Your task to perform on an android device: Open accessibility settings Image 0: 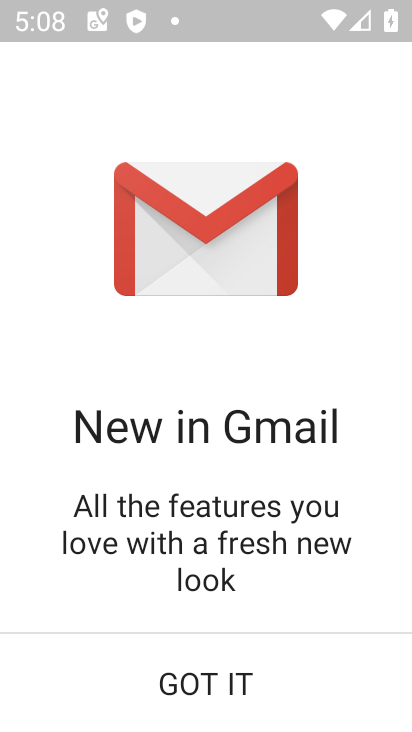
Step 0: press home button
Your task to perform on an android device: Open accessibility settings Image 1: 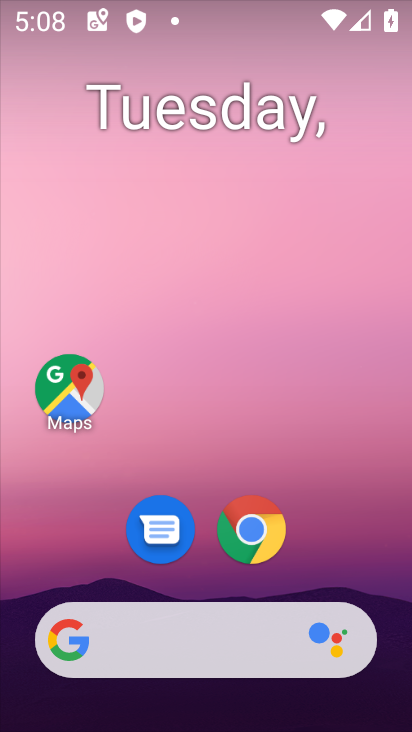
Step 1: drag from (341, 550) to (324, 59)
Your task to perform on an android device: Open accessibility settings Image 2: 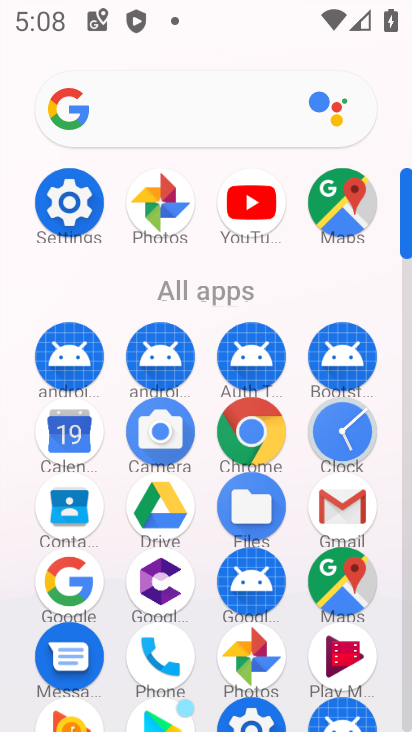
Step 2: click (79, 192)
Your task to perform on an android device: Open accessibility settings Image 3: 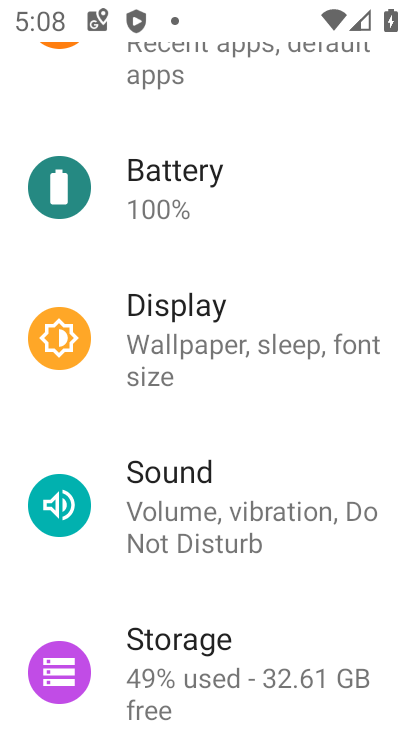
Step 3: drag from (315, 356) to (318, 307)
Your task to perform on an android device: Open accessibility settings Image 4: 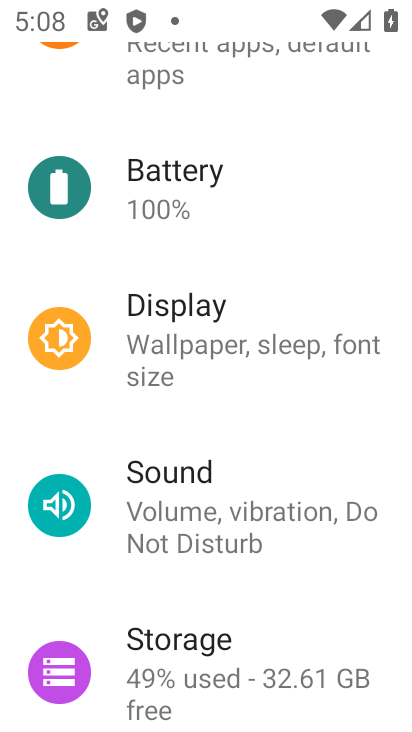
Step 4: drag from (395, 573) to (392, 92)
Your task to perform on an android device: Open accessibility settings Image 5: 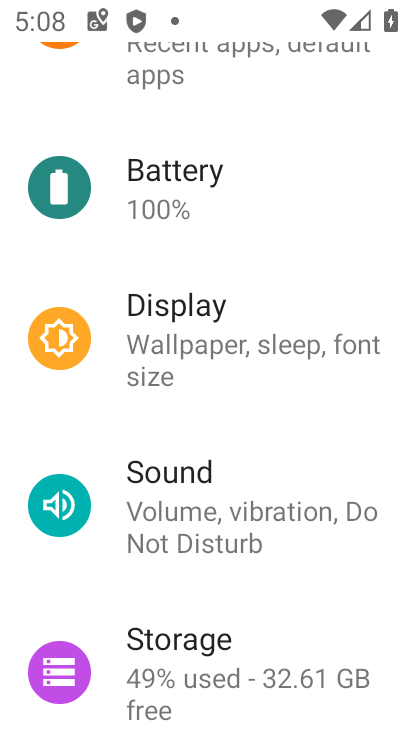
Step 5: drag from (404, 134) to (386, 298)
Your task to perform on an android device: Open accessibility settings Image 6: 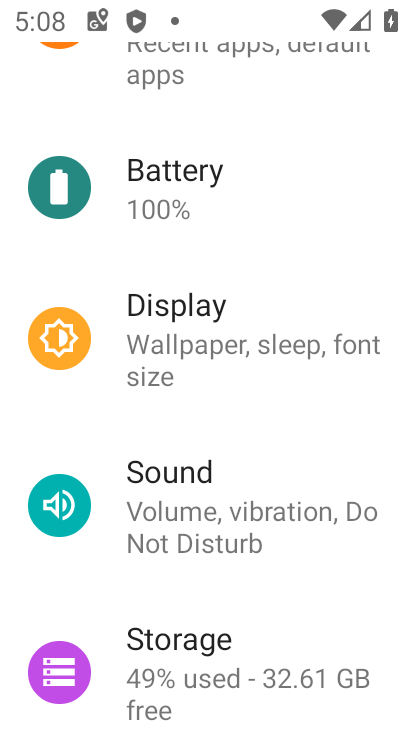
Step 6: drag from (399, 132) to (385, 456)
Your task to perform on an android device: Open accessibility settings Image 7: 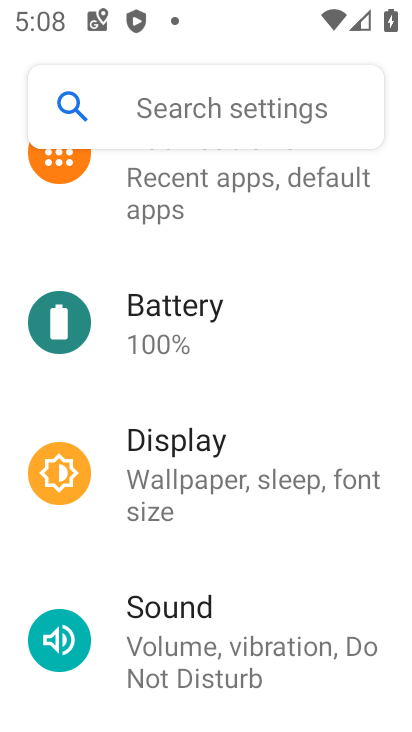
Step 7: drag from (409, 182) to (407, 500)
Your task to perform on an android device: Open accessibility settings Image 8: 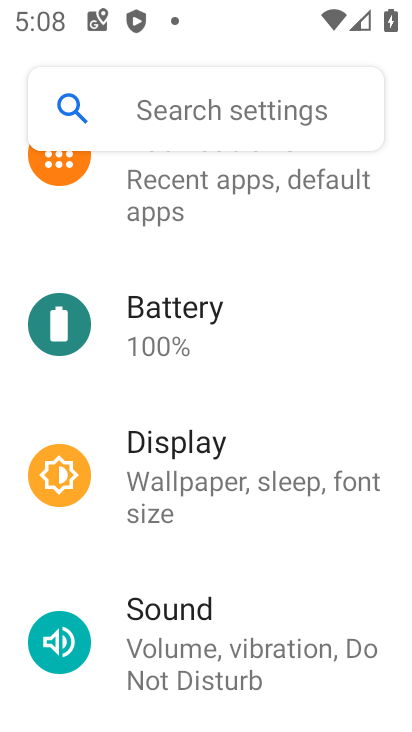
Step 8: drag from (401, 184) to (365, 541)
Your task to perform on an android device: Open accessibility settings Image 9: 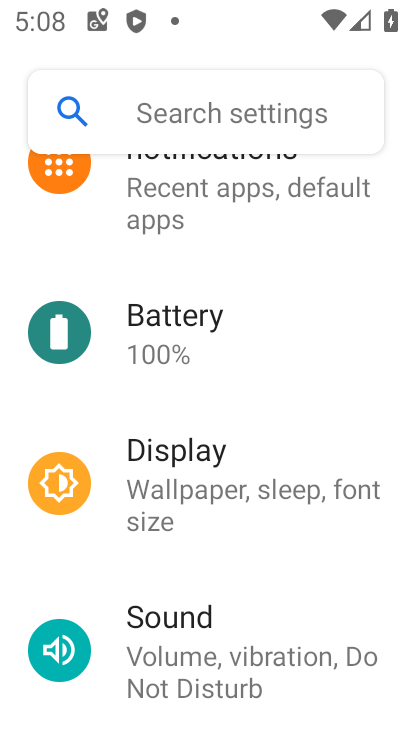
Step 9: drag from (402, 145) to (370, 539)
Your task to perform on an android device: Open accessibility settings Image 10: 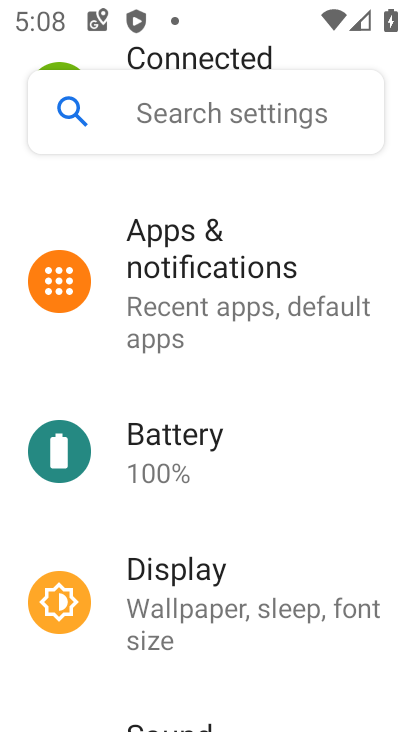
Step 10: click (407, 543)
Your task to perform on an android device: Open accessibility settings Image 11: 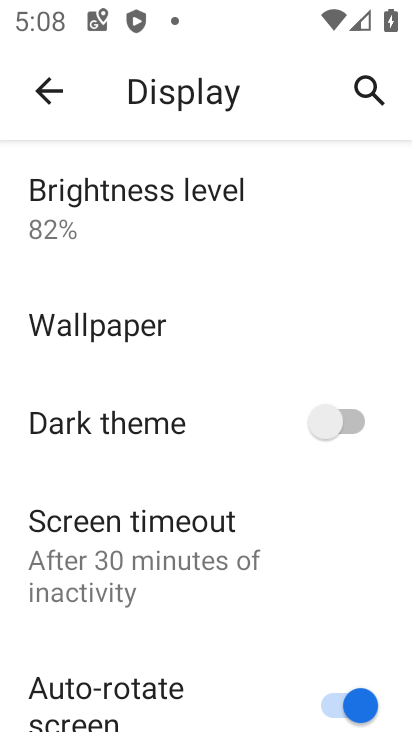
Step 11: press back button
Your task to perform on an android device: Open accessibility settings Image 12: 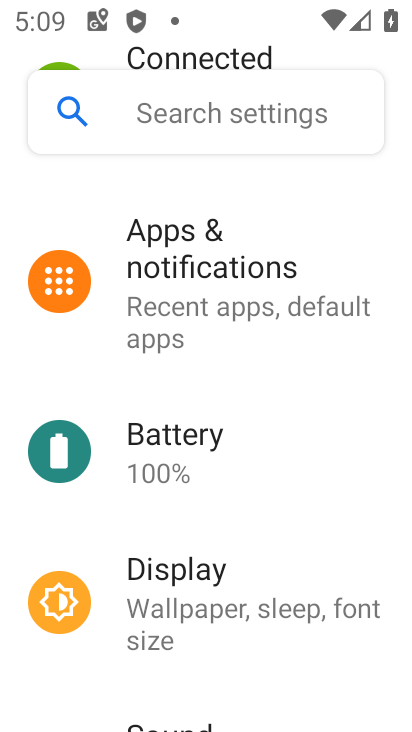
Step 12: drag from (391, 315) to (365, 598)
Your task to perform on an android device: Open accessibility settings Image 13: 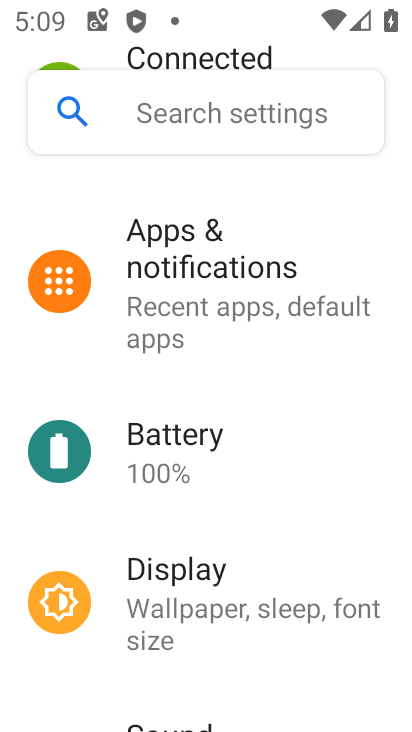
Step 13: drag from (398, 269) to (388, 704)
Your task to perform on an android device: Open accessibility settings Image 14: 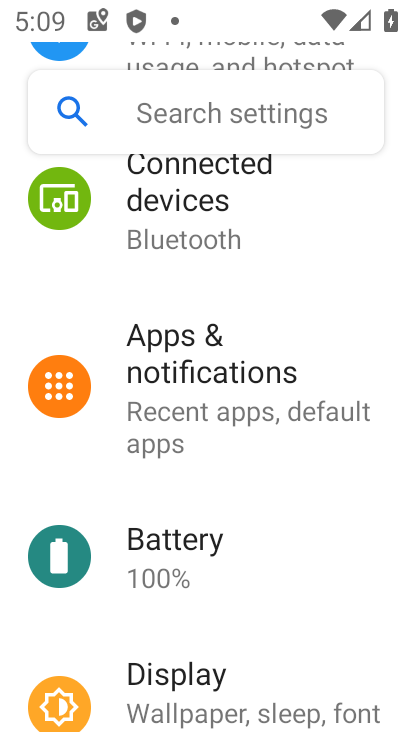
Step 14: drag from (398, 229) to (389, 556)
Your task to perform on an android device: Open accessibility settings Image 15: 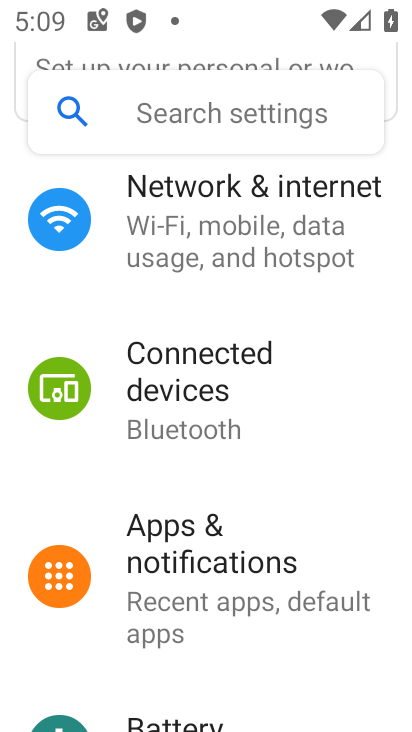
Step 15: drag from (397, 615) to (396, 286)
Your task to perform on an android device: Open accessibility settings Image 16: 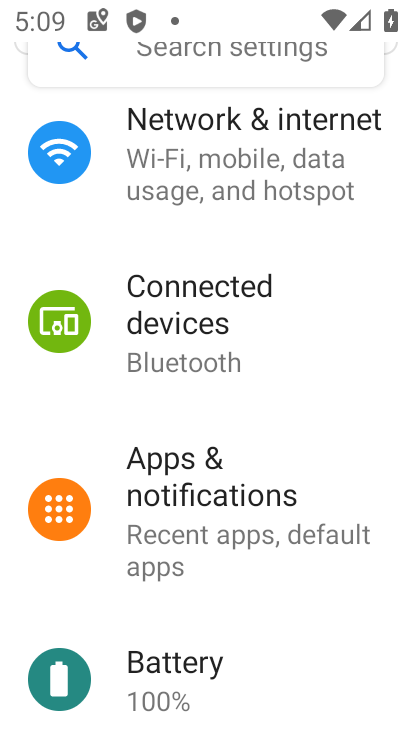
Step 16: drag from (397, 613) to (380, 197)
Your task to perform on an android device: Open accessibility settings Image 17: 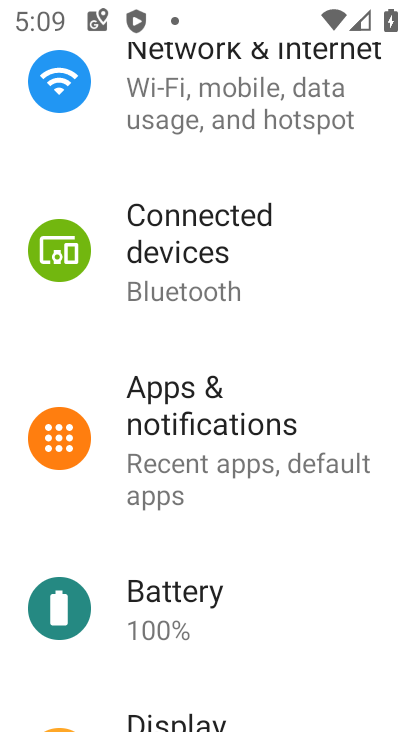
Step 17: drag from (395, 532) to (403, 134)
Your task to perform on an android device: Open accessibility settings Image 18: 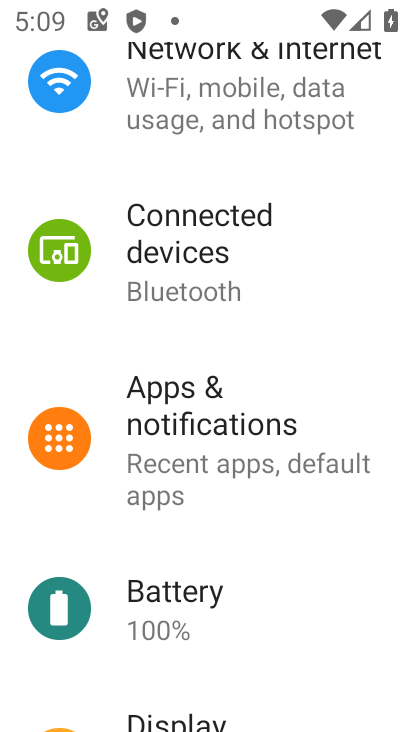
Step 18: drag from (401, 577) to (411, 139)
Your task to perform on an android device: Open accessibility settings Image 19: 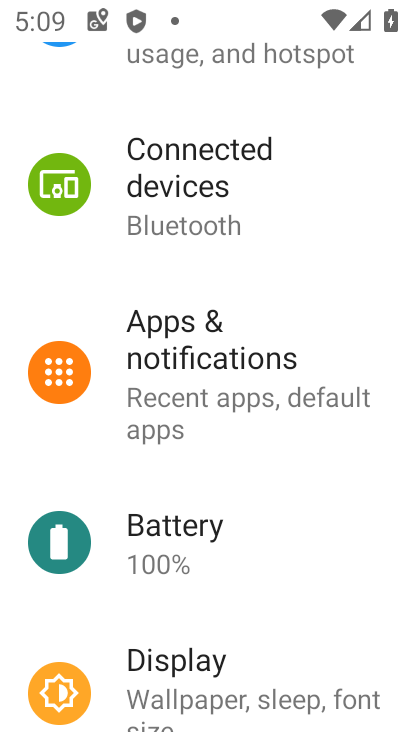
Step 19: drag from (397, 612) to (395, 154)
Your task to perform on an android device: Open accessibility settings Image 20: 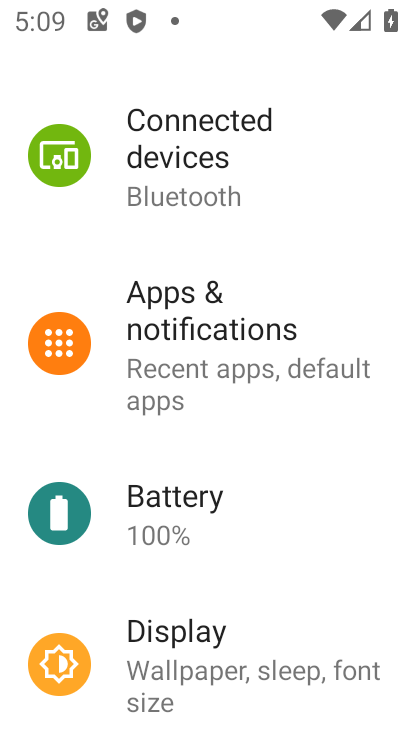
Step 20: drag from (401, 598) to (405, 138)
Your task to perform on an android device: Open accessibility settings Image 21: 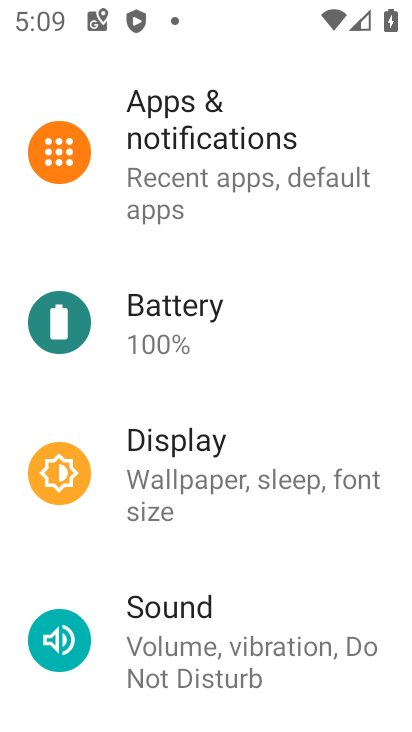
Step 21: drag from (397, 612) to (411, 478)
Your task to perform on an android device: Open accessibility settings Image 22: 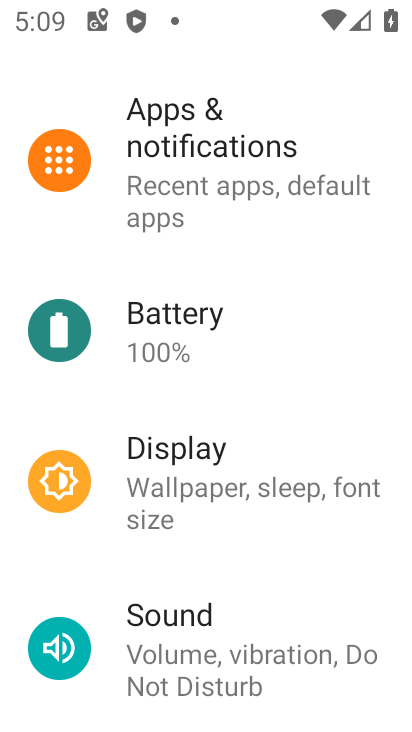
Step 22: drag from (398, 585) to (369, 179)
Your task to perform on an android device: Open accessibility settings Image 23: 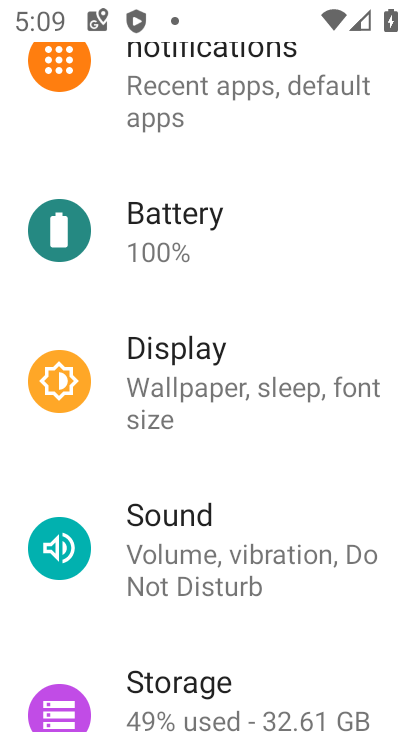
Step 23: drag from (405, 450) to (405, 138)
Your task to perform on an android device: Open accessibility settings Image 24: 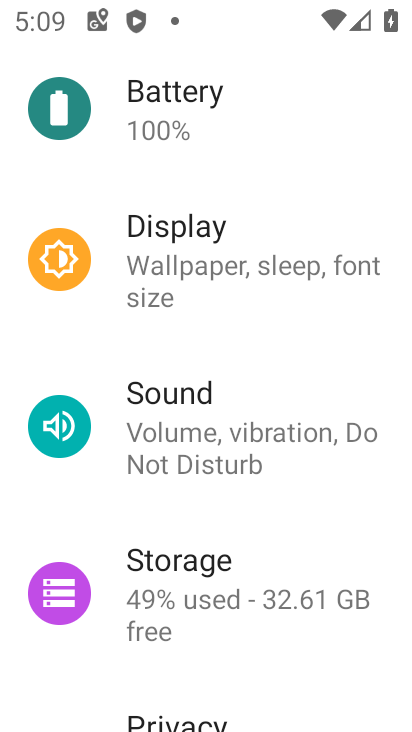
Step 24: drag from (391, 524) to (409, 95)
Your task to perform on an android device: Open accessibility settings Image 25: 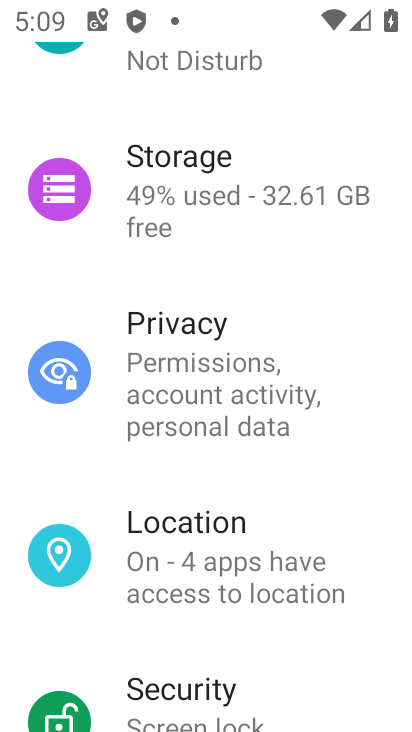
Step 25: drag from (394, 515) to (392, 46)
Your task to perform on an android device: Open accessibility settings Image 26: 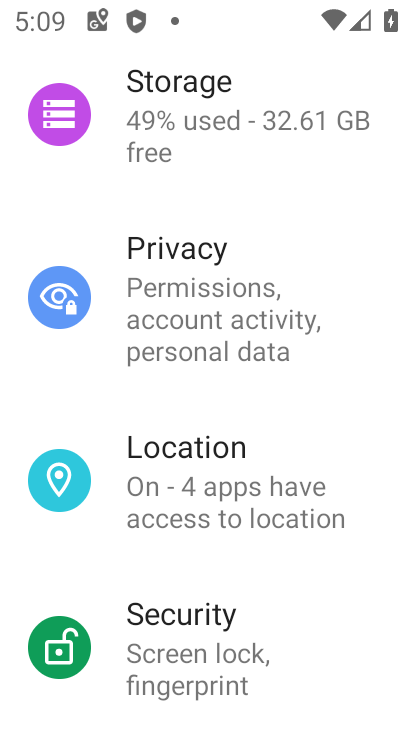
Step 26: drag from (399, 497) to (400, 164)
Your task to perform on an android device: Open accessibility settings Image 27: 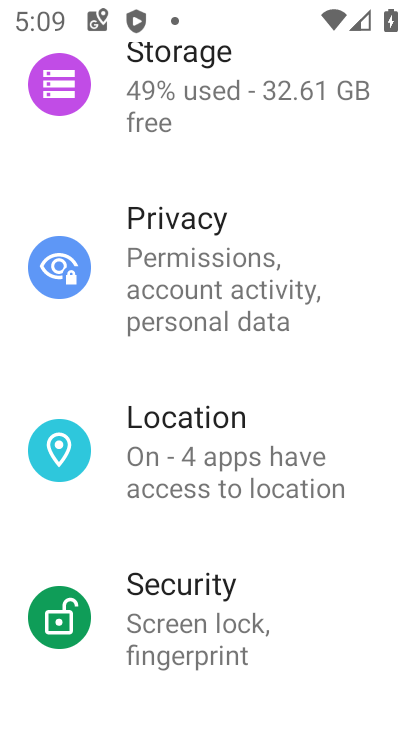
Step 27: drag from (397, 440) to (378, 49)
Your task to perform on an android device: Open accessibility settings Image 28: 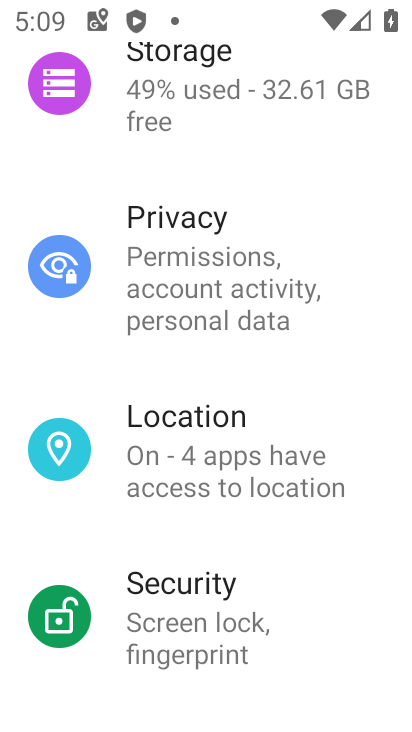
Step 28: drag from (388, 562) to (408, 362)
Your task to perform on an android device: Open accessibility settings Image 29: 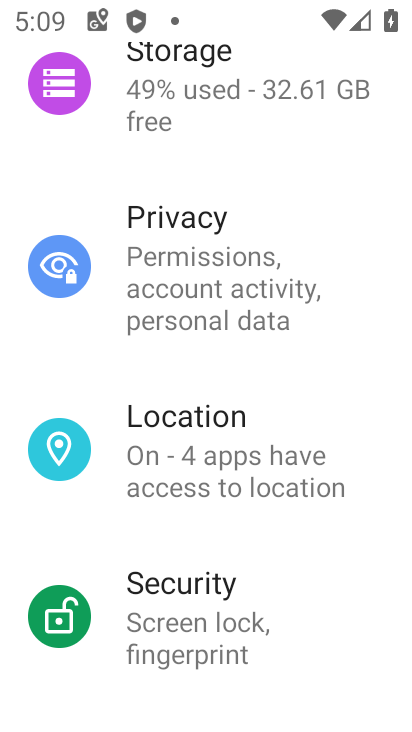
Step 29: drag from (396, 531) to (365, 142)
Your task to perform on an android device: Open accessibility settings Image 30: 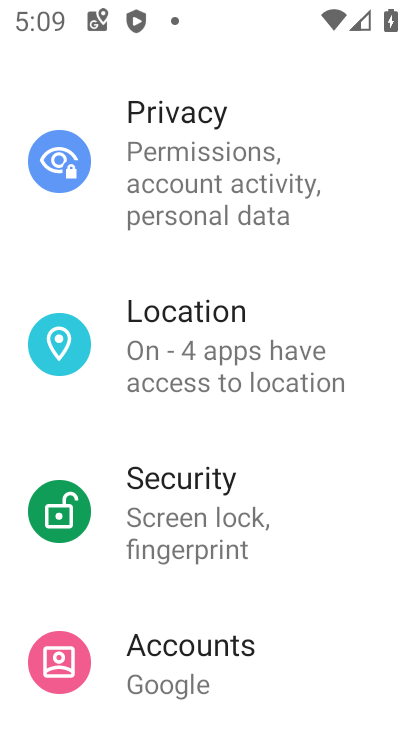
Step 30: drag from (396, 527) to (380, 42)
Your task to perform on an android device: Open accessibility settings Image 31: 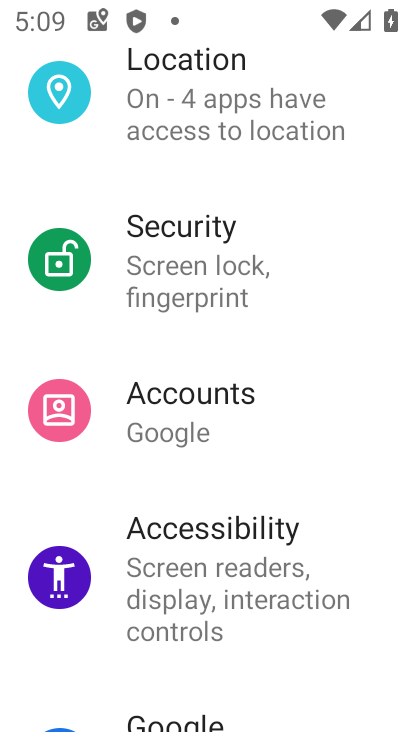
Step 31: click (161, 564)
Your task to perform on an android device: Open accessibility settings Image 32: 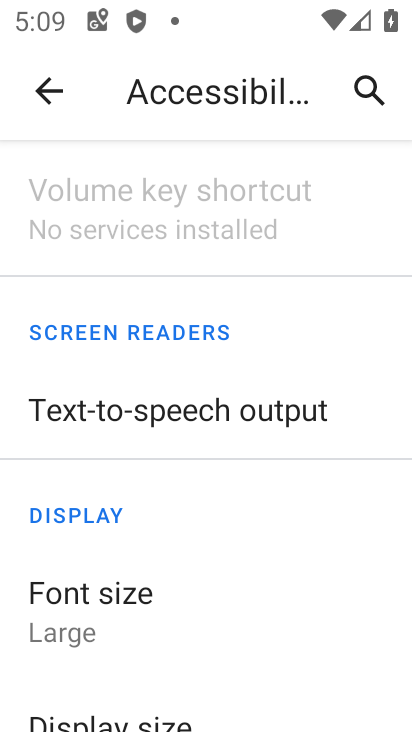
Step 32: task complete